Your task to perform on an android device: visit the assistant section in the google photos Image 0: 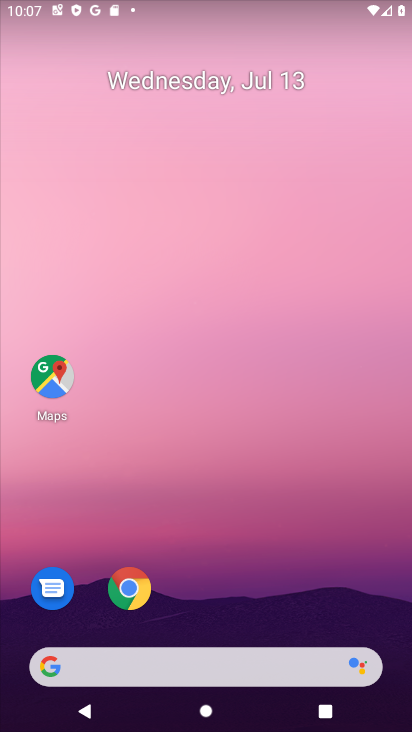
Step 0: drag from (227, 584) to (218, 195)
Your task to perform on an android device: visit the assistant section in the google photos Image 1: 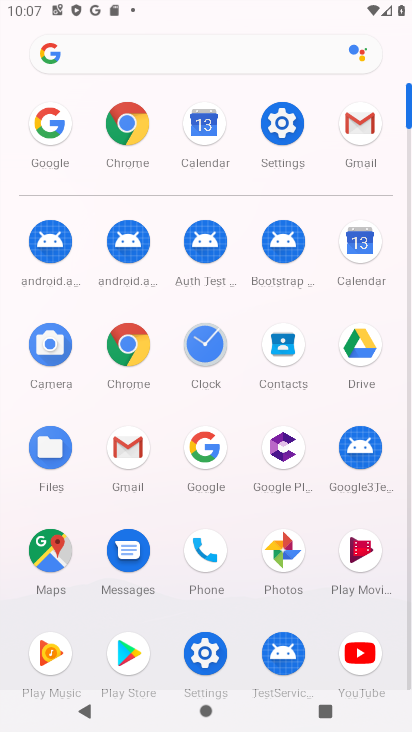
Step 1: click (283, 549)
Your task to perform on an android device: visit the assistant section in the google photos Image 2: 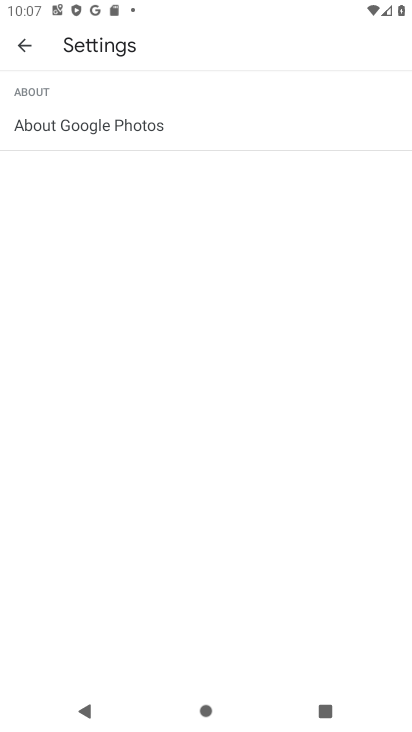
Step 2: press back button
Your task to perform on an android device: visit the assistant section in the google photos Image 3: 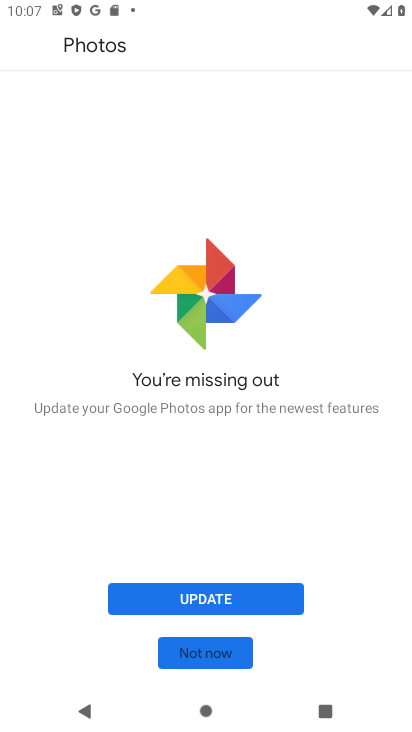
Step 3: click (203, 593)
Your task to perform on an android device: visit the assistant section in the google photos Image 4: 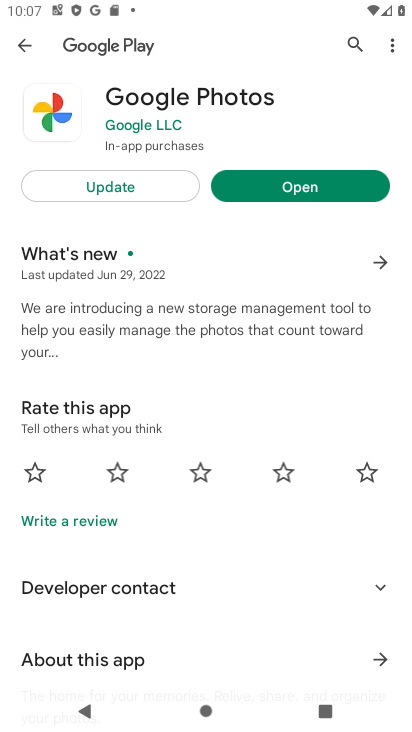
Step 4: click (96, 181)
Your task to perform on an android device: visit the assistant section in the google photos Image 5: 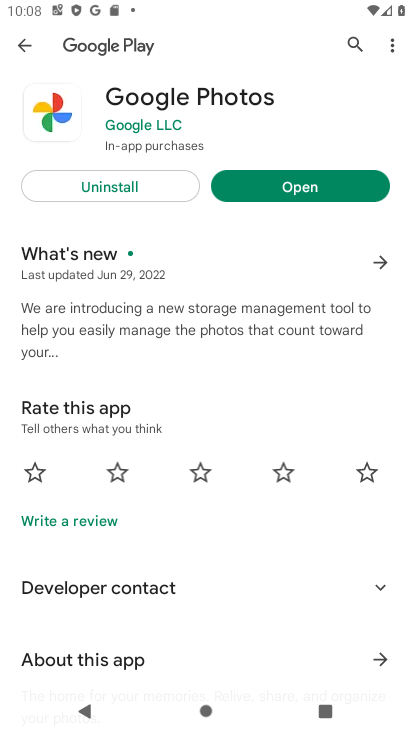
Step 5: click (291, 183)
Your task to perform on an android device: visit the assistant section in the google photos Image 6: 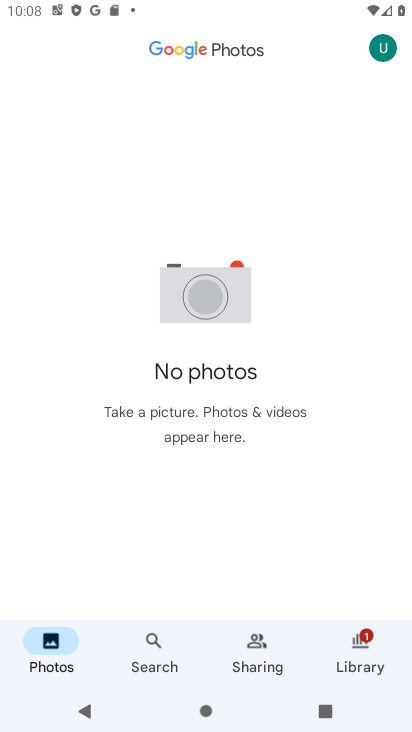
Step 6: click (373, 654)
Your task to perform on an android device: visit the assistant section in the google photos Image 7: 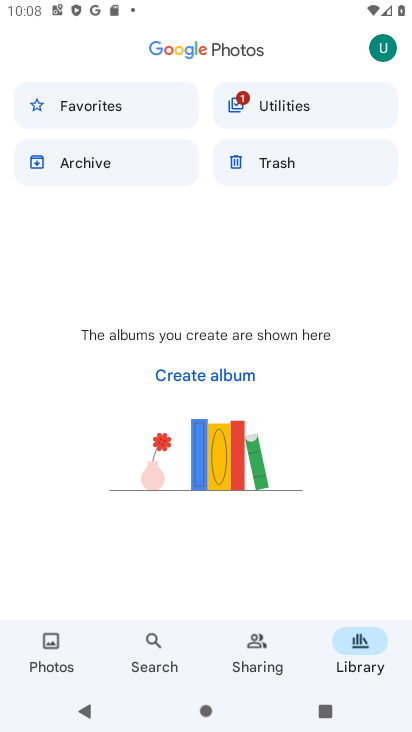
Step 7: task complete